Your task to perform on an android device: Open calendar and show me the first week of next month Image 0: 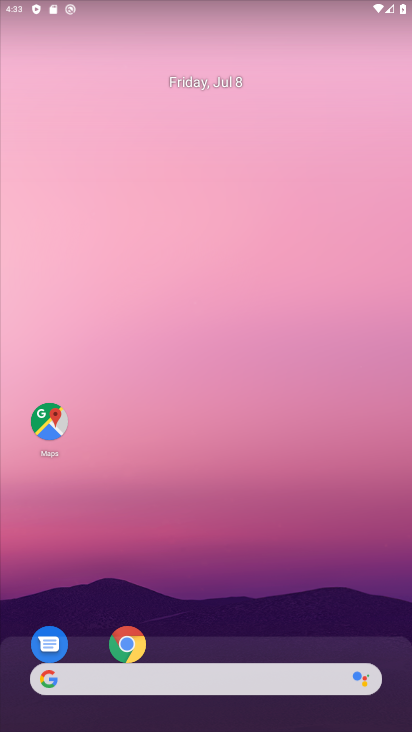
Step 0: drag from (312, 546) to (273, 23)
Your task to perform on an android device: Open calendar and show me the first week of next month Image 1: 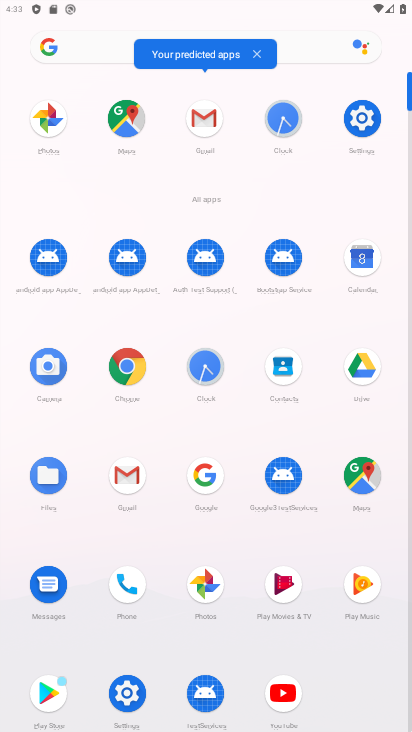
Step 1: click (366, 262)
Your task to perform on an android device: Open calendar and show me the first week of next month Image 2: 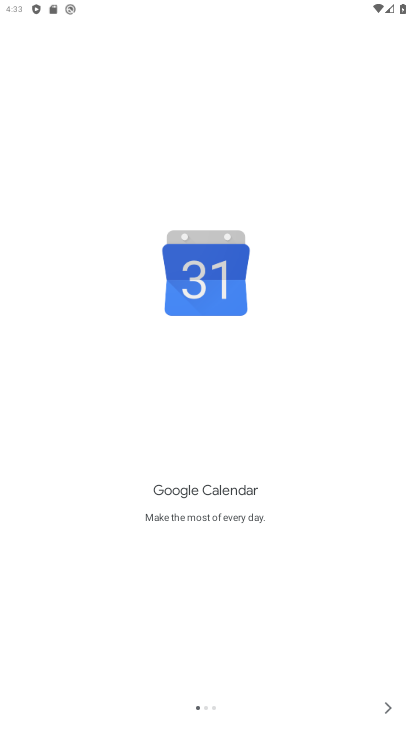
Step 2: click (386, 699)
Your task to perform on an android device: Open calendar and show me the first week of next month Image 3: 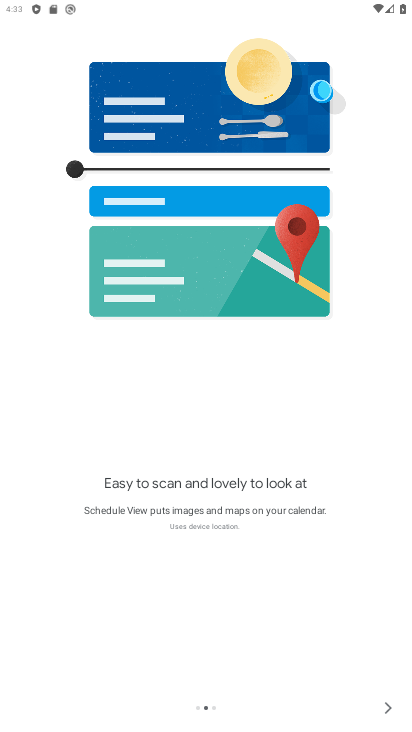
Step 3: click (386, 698)
Your task to perform on an android device: Open calendar and show me the first week of next month Image 4: 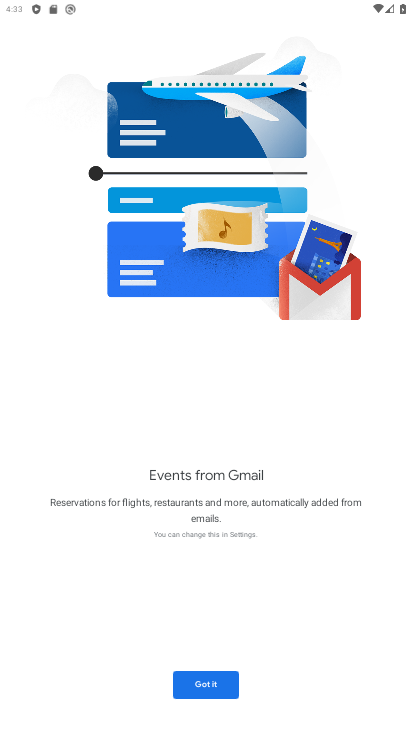
Step 4: click (386, 698)
Your task to perform on an android device: Open calendar and show me the first week of next month Image 5: 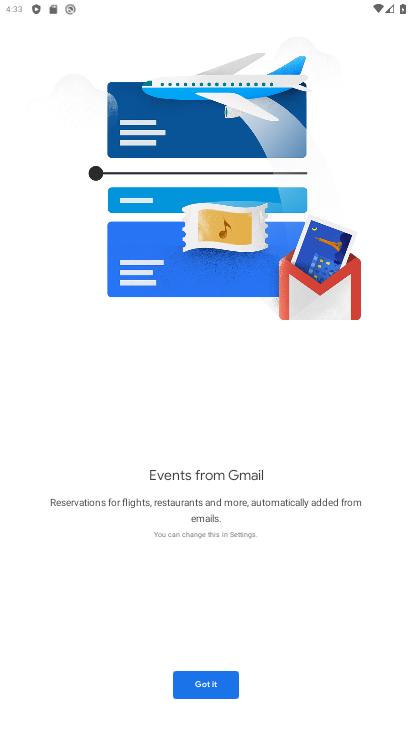
Step 5: click (205, 690)
Your task to perform on an android device: Open calendar and show me the first week of next month Image 6: 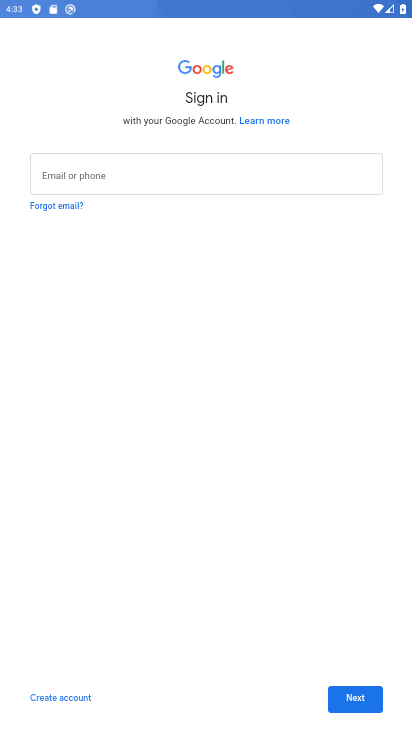
Step 6: task complete